Your task to perform on an android device: turn on javascript in the chrome app Image 0: 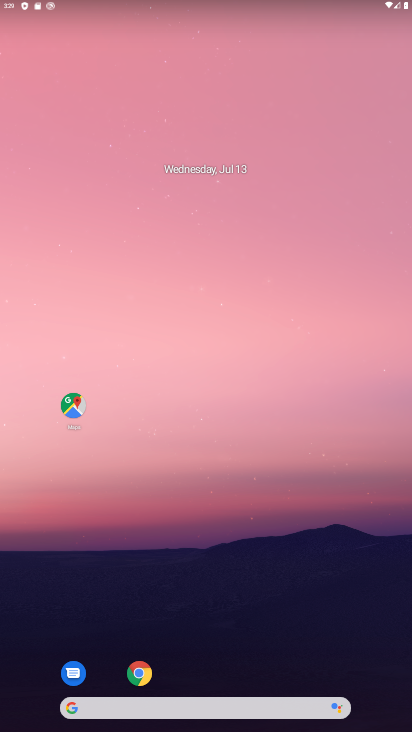
Step 0: click (136, 675)
Your task to perform on an android device: turn on javascript in the chrome app Image 1: 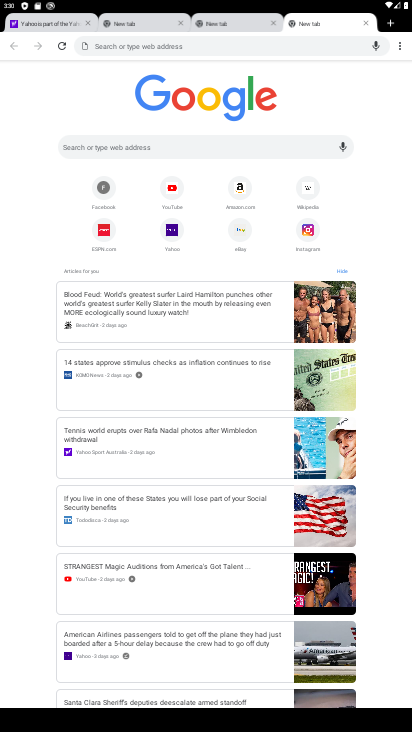
Step 1: click (273, 20)
Your task to perform on an android device: turn on javascript in the chrome app Image 2: 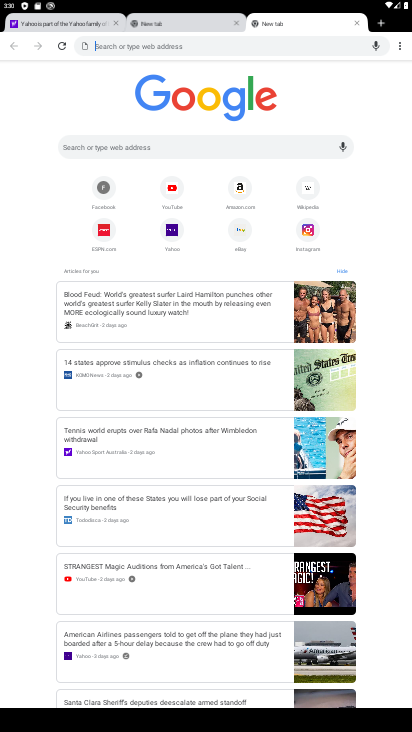
Step 2: click (234, 23)
Your task to perform on an android device: turn on javascript in the chrome app Image 3: 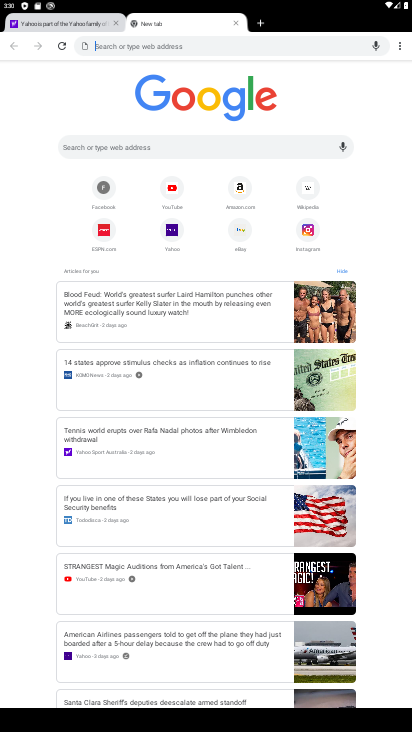
Step 3: click (397, 50)
Your task to perform on an android device: turn on javascript in the chrome app Image 4: 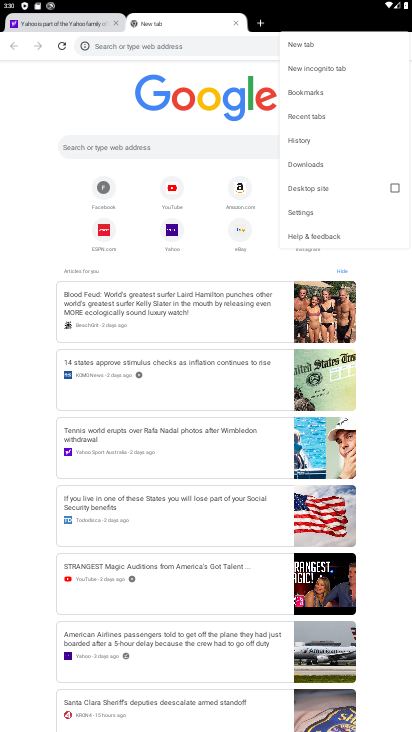
Step 4: click (304, 209)
Your task to perform on an android device: turn on javascript in the chrome app Image 5: 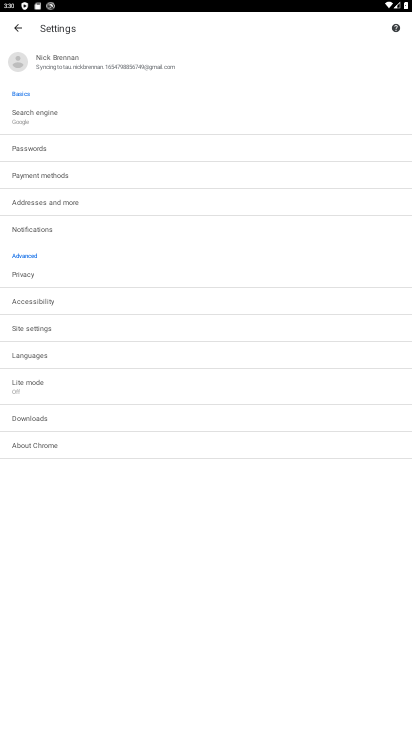
Step 5: click (34, 327)
Your task to perform on an android device: turn on javascript in the chrome app Image 6: 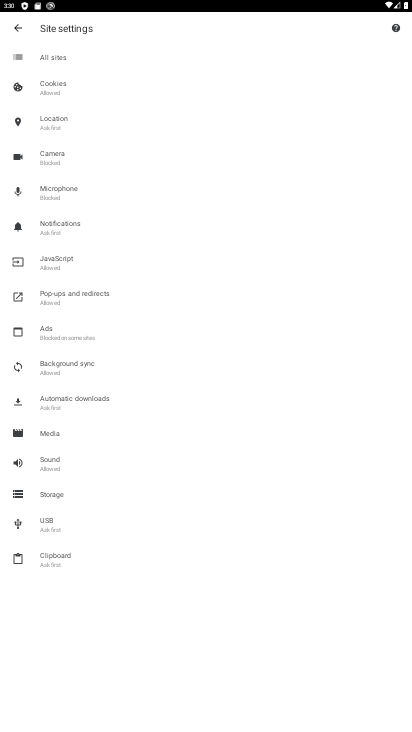
Step 6: click (59, 265)
Your task to perform on an android device: turn on javascript in the chrome app Image 7: 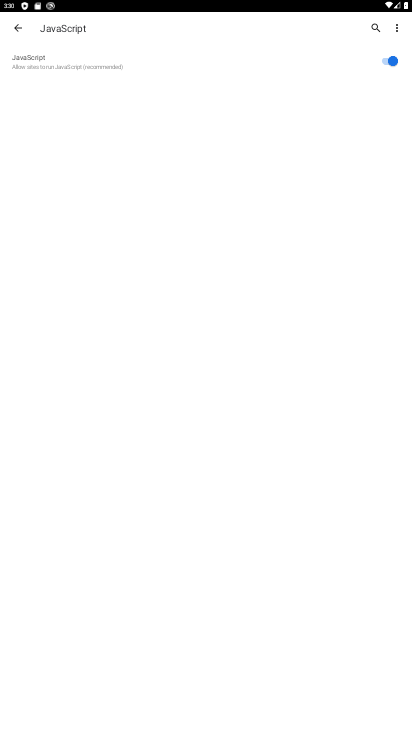
Step 7: task complete